Your task to perform on an android device: Search for pizza restaurants on Maps Image 0: 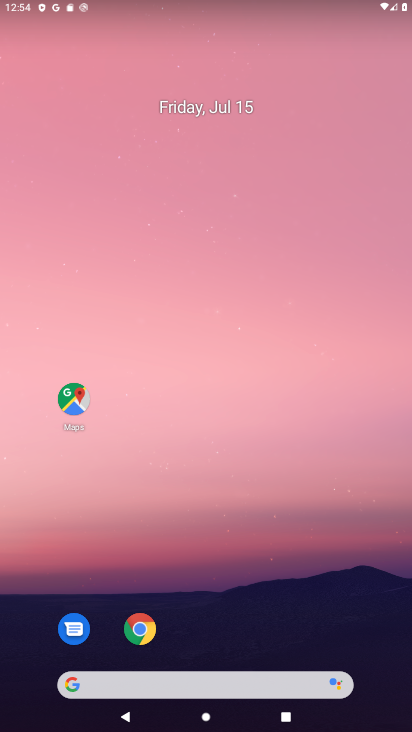
Step 0: click (77, 388)
Your task to perform on an android device: Search for pizza restaurants on Maps Image 1: 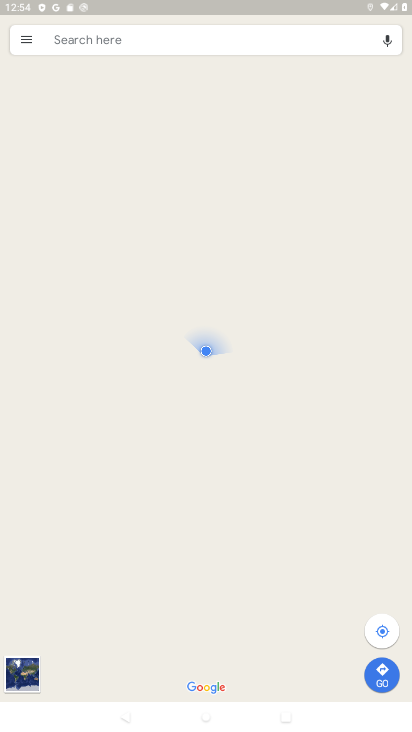
Step 1: click (83, 35)
Your task to perform on an android device: Search for pizza restaurants on Maps Image 2: 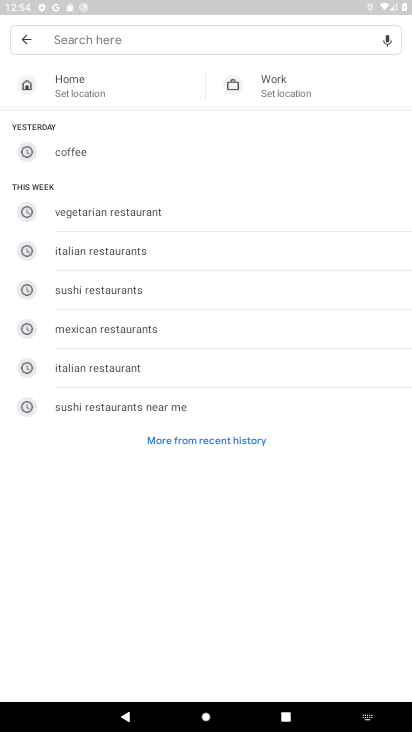
Step 2: type "pizza restaurants "
Your task to perform on an android device: Search for pizza restaurants on Maps Image 3: 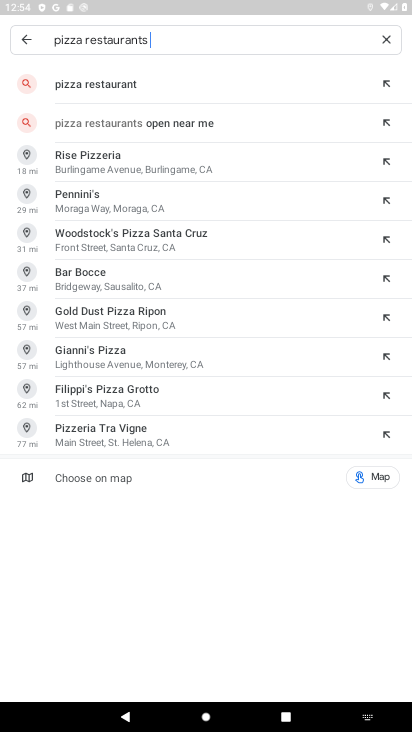
Step 3: click (188, 77)
Your task to perform on an android device: Search for pizza restaurants on Maps Image 4: 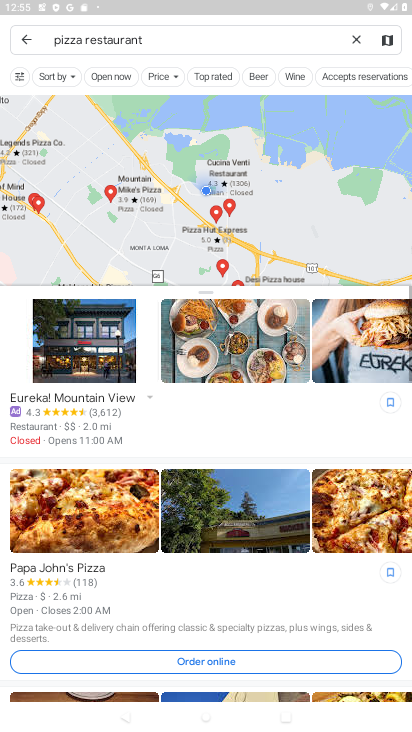
Step 4: task complete